Your task to perform on an android device: delete location history Image 0: 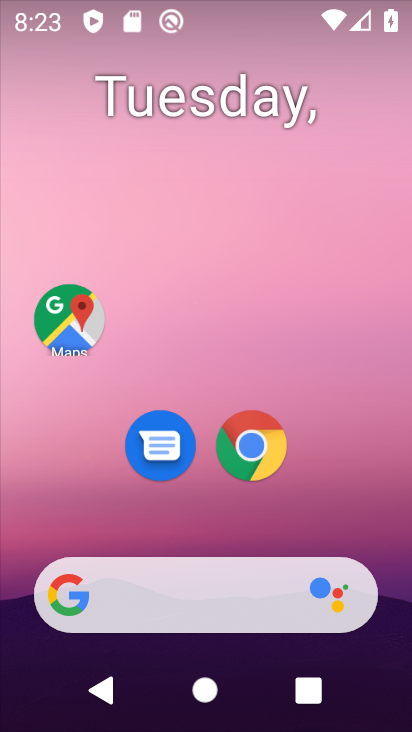
Step 0: drag from (365, 514) to (173, 8)
Your task to perform on an android device: delete location history Image 1: 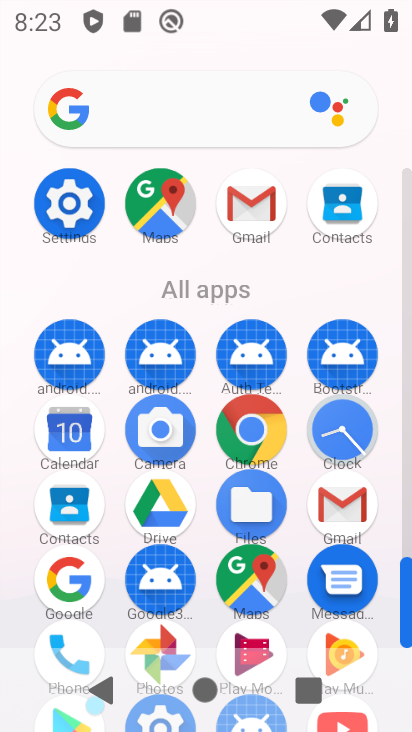
Step 1: click (157, 211)
Your task to perform on an android device: delete location history Image 2: 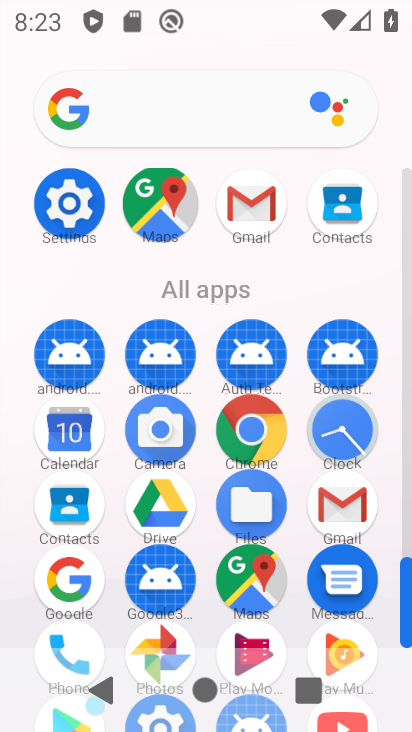
Step 2: click (158, 210)
Your task to perform on an android device: delete location history Image 3: 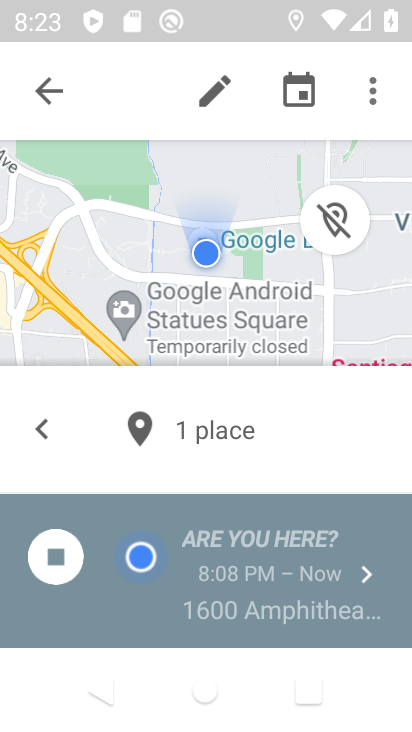
Step 3: click (49, 93)
Your task to perform on an android device: delete location history Image 4: 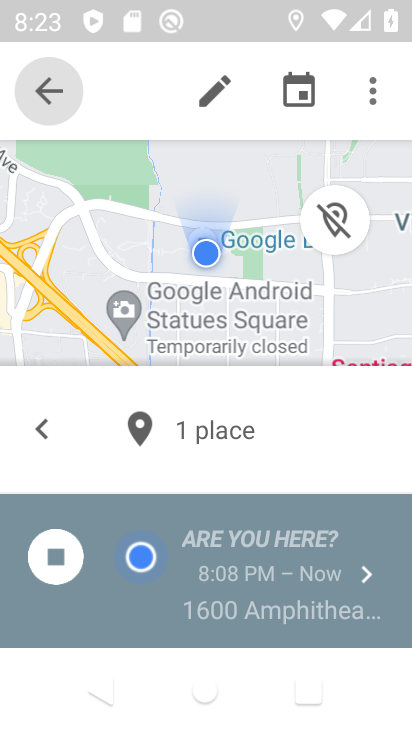
Step 4: click (48, 92)
Your task to perform on an android device: delete location history Image 5: 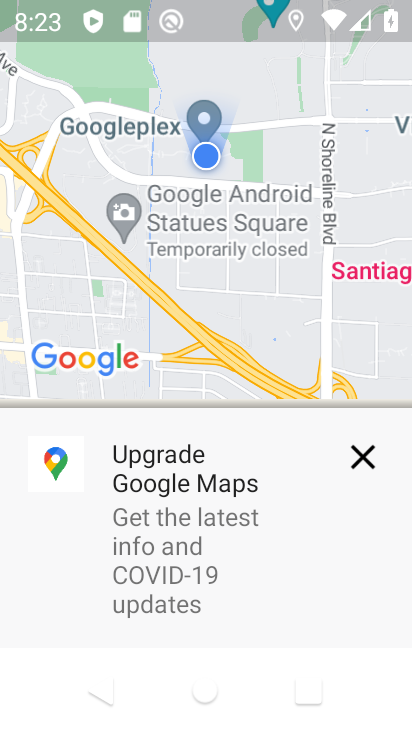
Step 5: click (365, 456)
Your task to perform on an android device: delete location history Image 6: 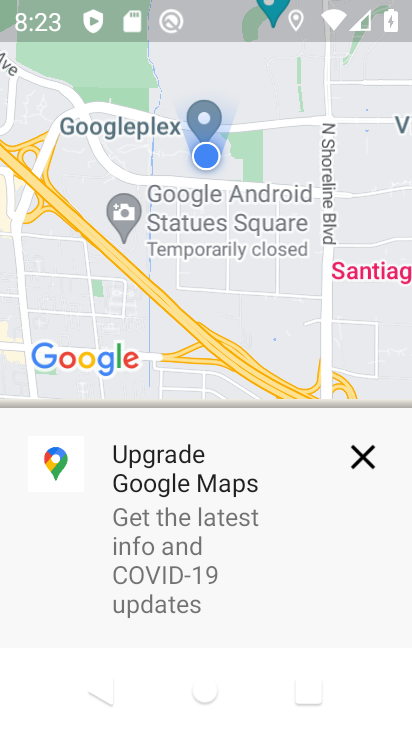
Step 6: click (365, 456)
Your task to perform on an android device: delete location history Image 7: 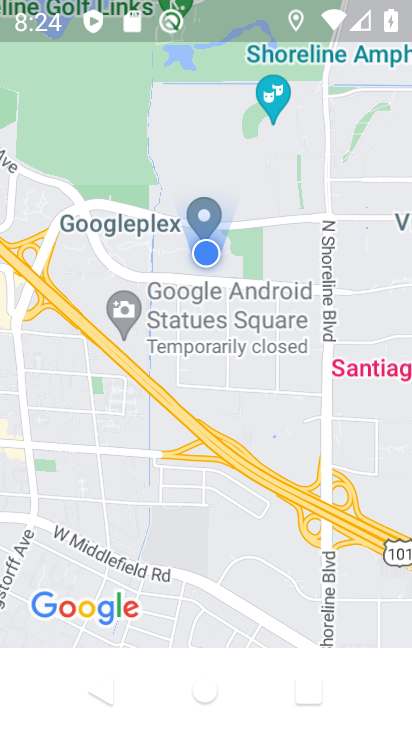
Step 7: drag from (81, 123) to (118, 363)
Your task to perform on an android device: delete location history Image 8: 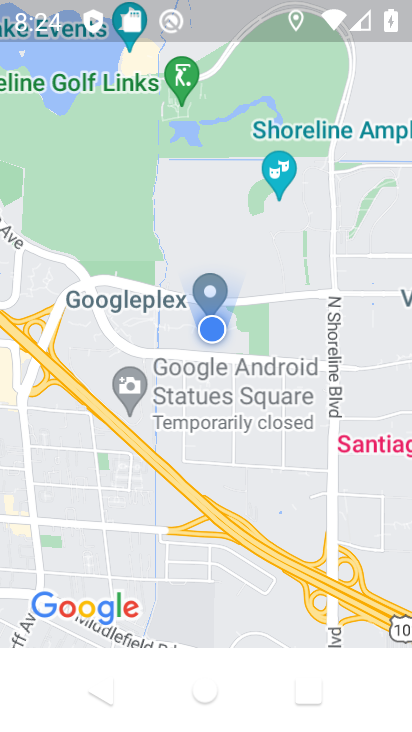
Step 8: drag from (145, 417) to (198, 452)
Your task to perform on an android device: delete location history Image 9: 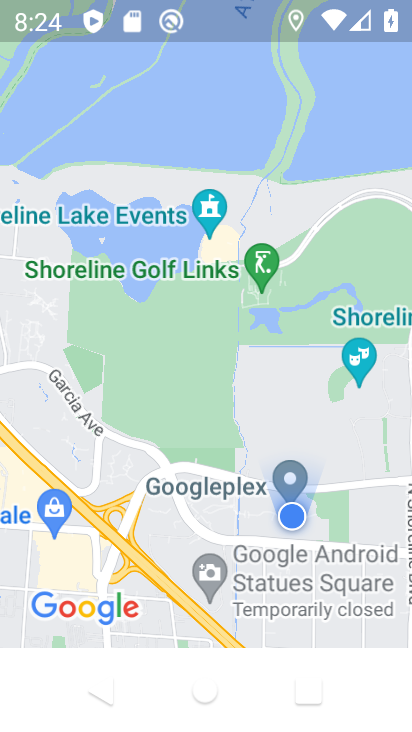
Step 9: drag from (159, 205) to (194, 440)
Your task to perform on an android device: delete location history Image 10: 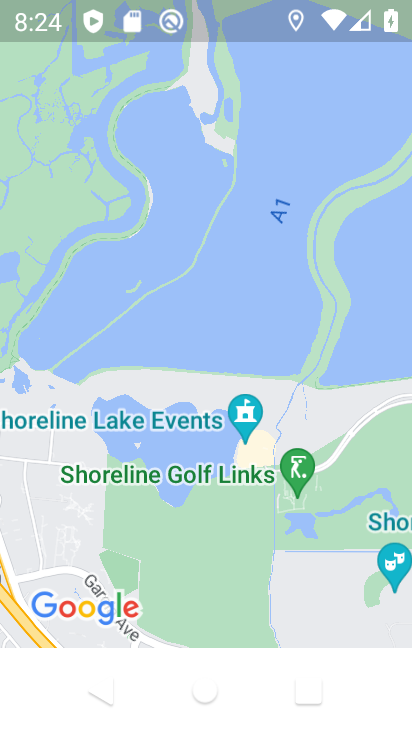
Step 10: press back button
Your task to perform on an android device: delete location history Image 11: 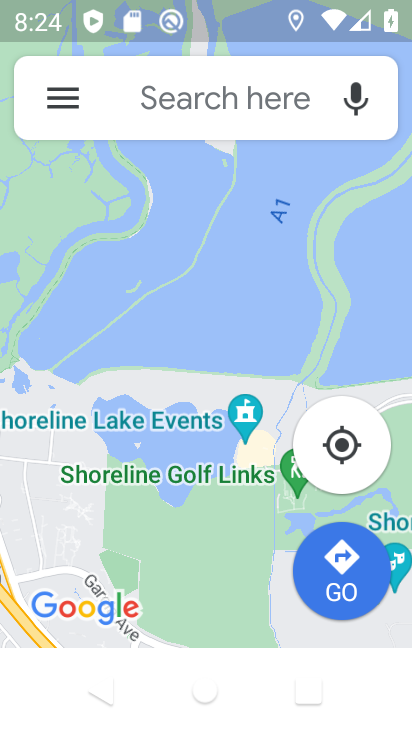
Step 11: click (56, 95)
Your task to perform on an android device: delete location history Image 12: 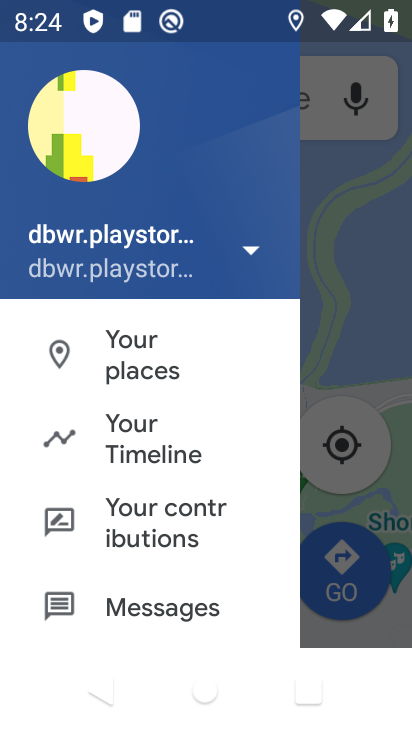
Step 12: click (160, 443)
Your task to perform on an android device: delete location history Image 13: 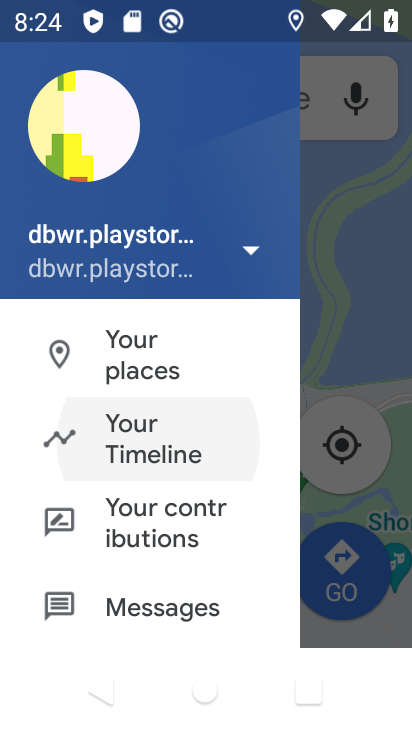
Step 13: click (161, 442)
Your task to perform on an android device: delete location history Image 14: 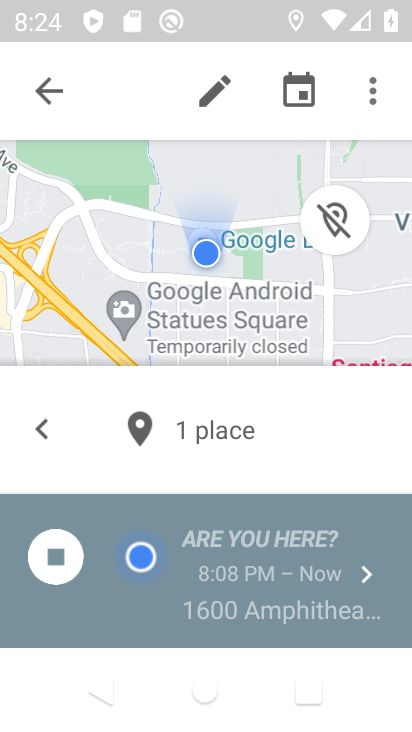
Step 14: click (368, 85)
Your task to perform on an android device: delete location history Image 15: 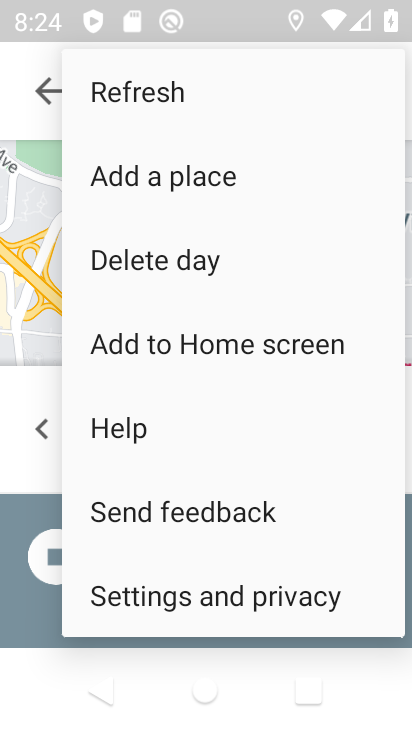
Step 15: click (190, 606)
Your task to perform on an android device: delete location history Image 16: 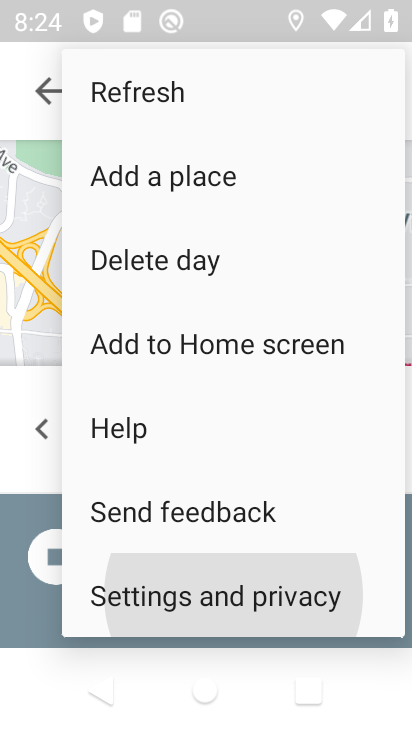
Step 16: click (190, 606)
Your task to perform on an android device: delete location history Image 17: 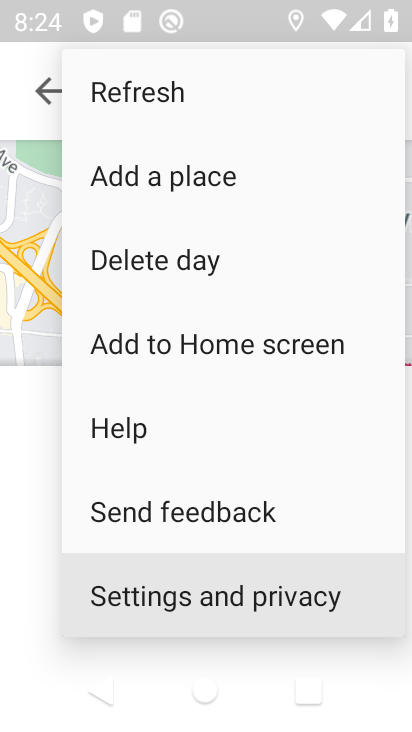
Step 17: click (191, 607)
Your task to perform on an android device: delete location history Image 18: 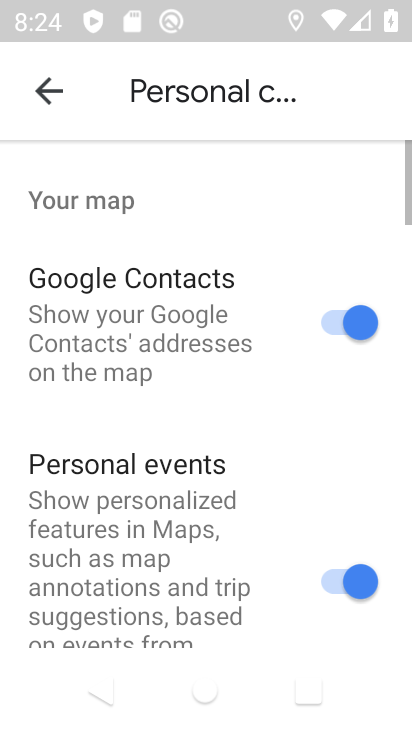
Step 18: drag from (235, 491) to (173, 200)
Your task to perform on an android device: delete location history Image 19: 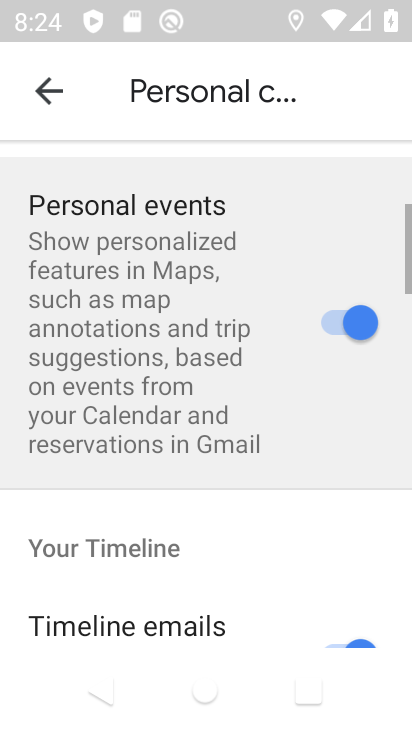
Step 19: drag from (204, 485) to (208, 177)
Your task to perform on an android device: delete location history Image 20: 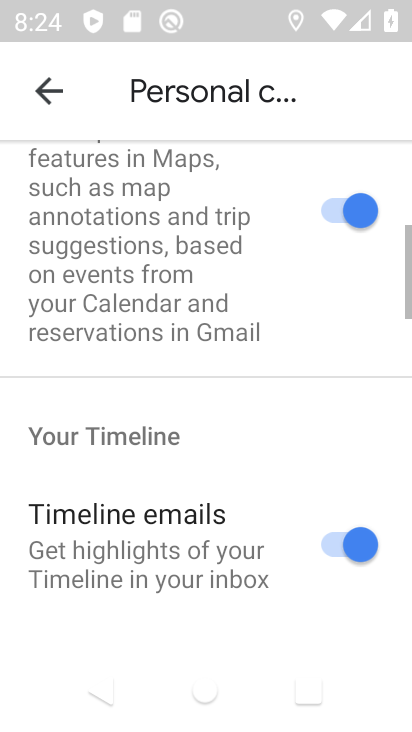
Step 20: drag from (229, 339) to (206, 50)
Your task to perform on an android device: delete location history Image 21: 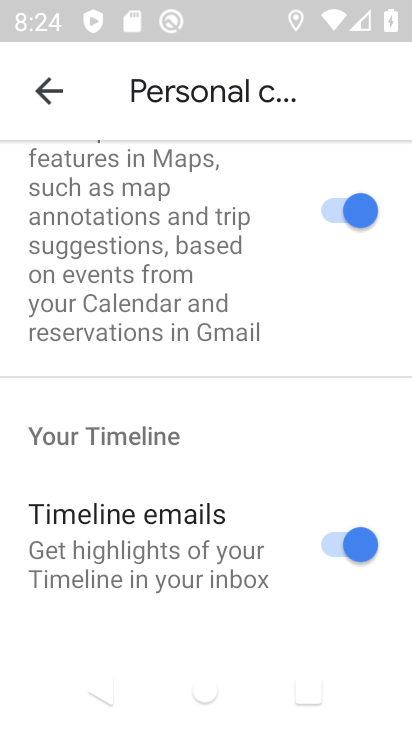
Step 21: drag from (172, 261) to (232, 590)
Your task to perform on an android device: delete location history Image 22: 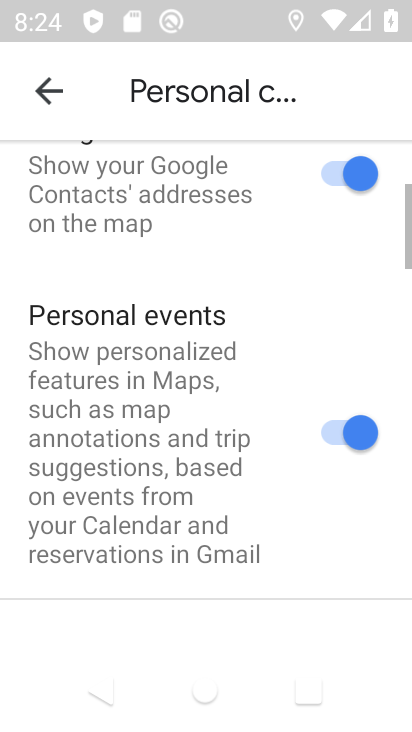
Step 22: drag from (217, 349) to (232, 449)
Your task to perform on an android device: delete location history Image 23: 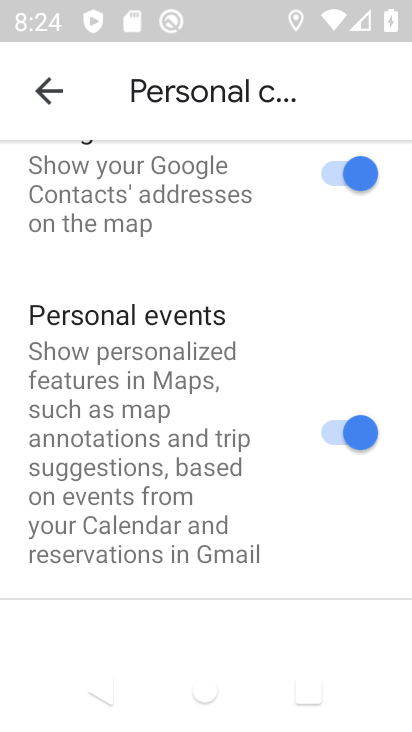
Step 23: drag from (163, 220) to (185, 338)
Your task to perform on an android device: delete location history Image 24: 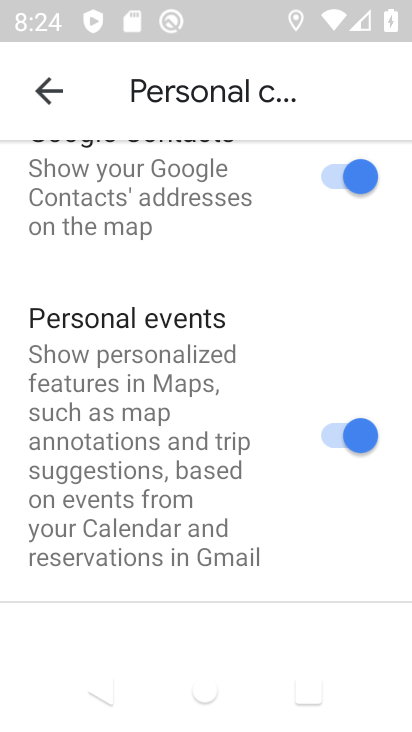
Step 24: drag from (167, 297) to (232, 486)
Your task to perform on an android device: delete location history Image 25: 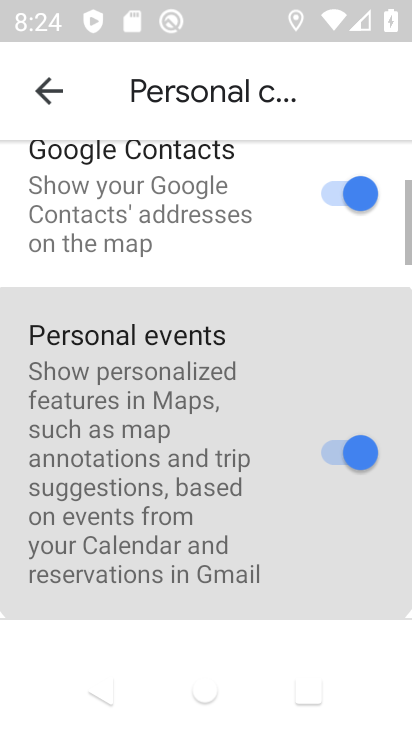
Step 25: drag from (196, 269) to (229, 454)
Your task to perform on an android device: delete location history Image 26: 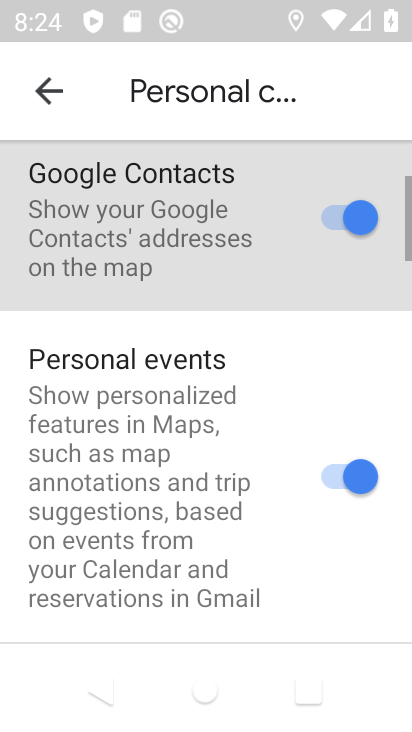
Step 26: drag from (213, 310) to (248, 556)
Your task to perform on an android device: delete location history Image 27: 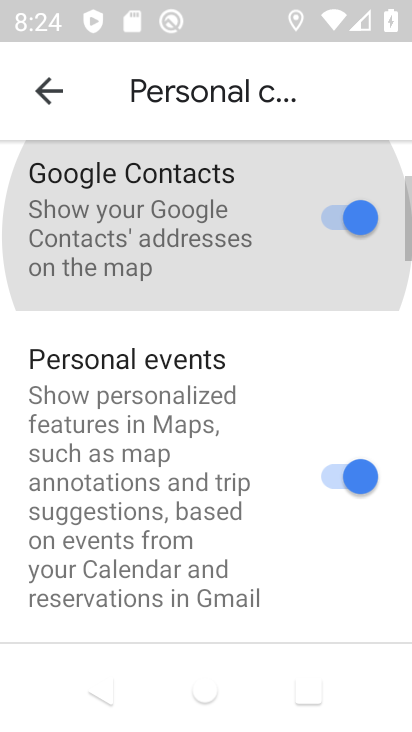
Step 27: drag from (221, 243) to (232, 517)
Your task to perform on an android device: delete location history Image 28: 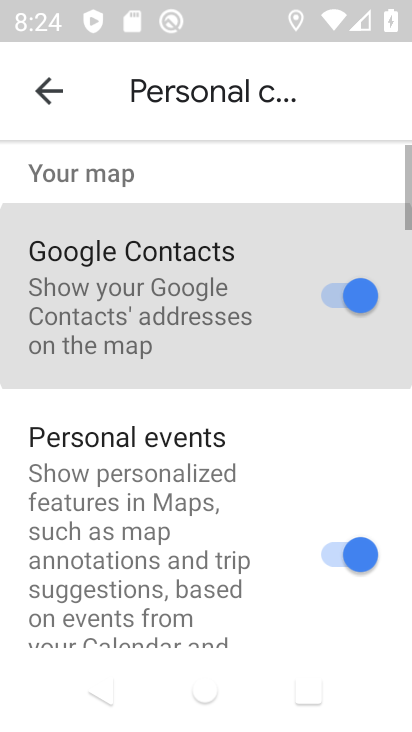
Step 28: drag from (184, 473) to (202, 606)
Your task to perform on an android device: delete location history Image 29: 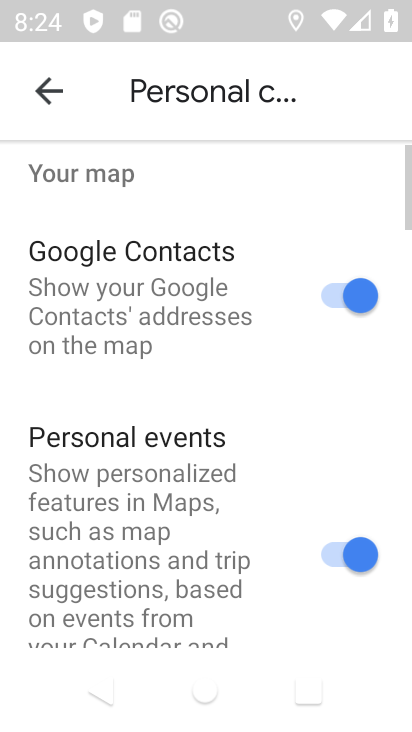
Step 29: drag from (82, 231) to (163, 534)
Your task to perform on an android device: delete location history Image 30: 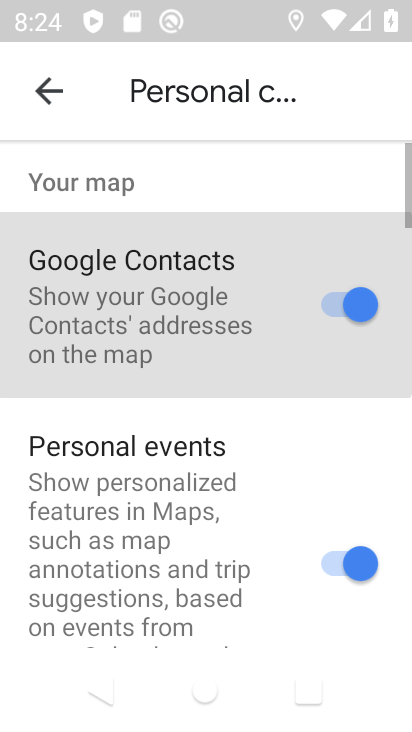
Step 30: drag from (127, 330) to (190, 528)
Your task to perform on an android device: delete location history Image 31: 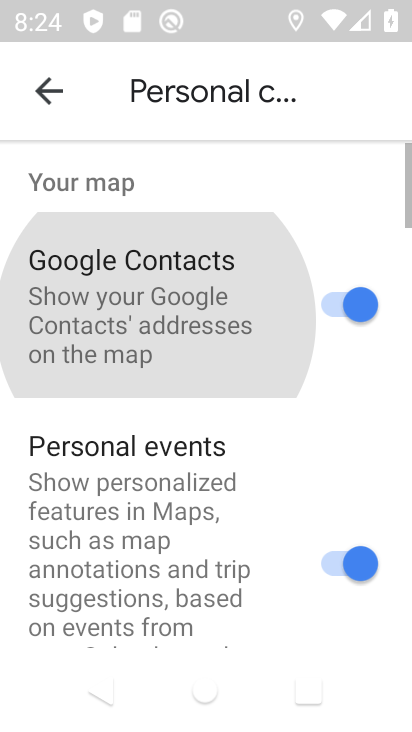
Step 31: drag from (132, 297) to (205, 578)
Your task to perform on an android device: delete location history Image 32: 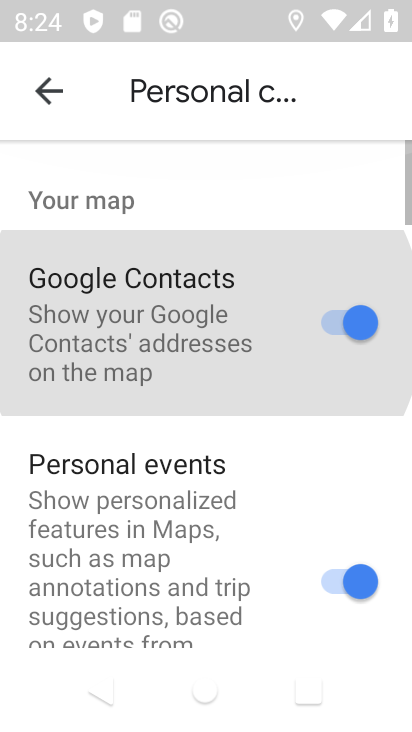
Step 32: drag from (147, 383) to (151, 220)
Your task to perform on an android device: delete location history Image 33: 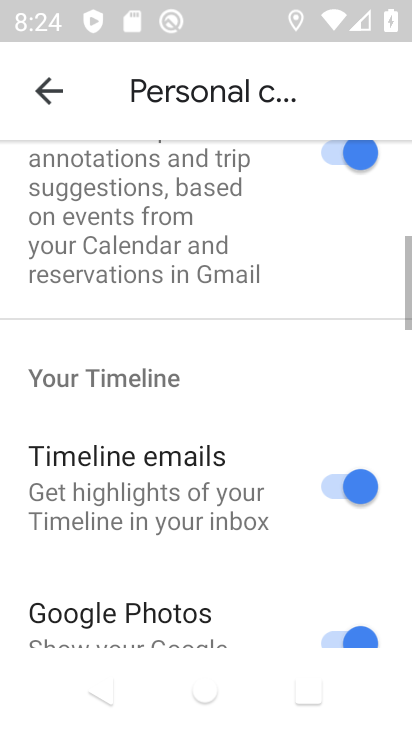
Step 33: drag from (243, 419) to (194, 98)
Your task to perform on an android device: delete location history Image 34: 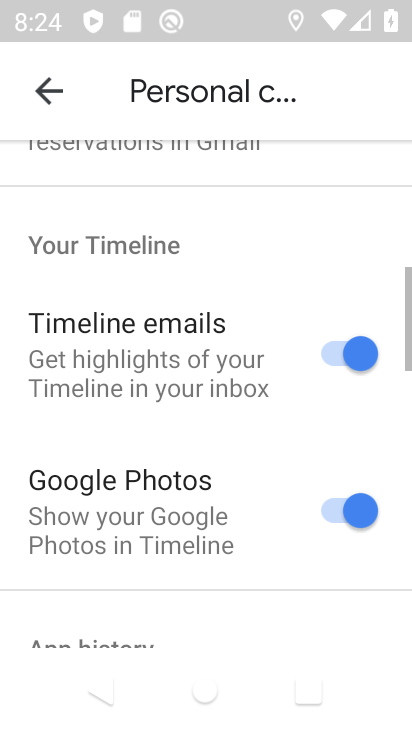
Step 34: drag from (275, 415) to (197, 78)
Your task to perform on an android device: delete location history Image 35: 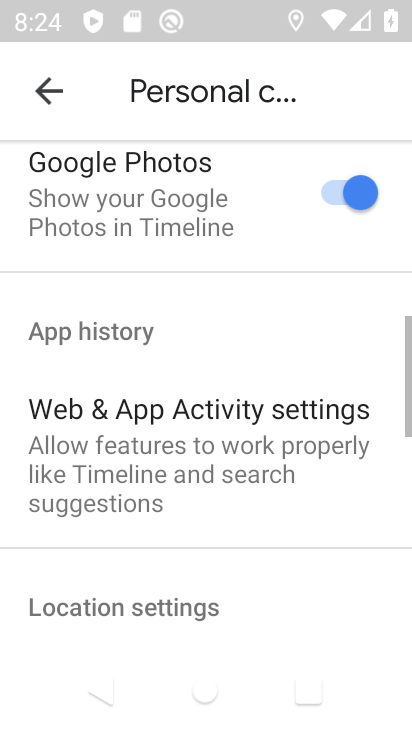
Step 35: drag from (171, 542) to (197, 177)
Your task to perform on an android device: delete location history Image 36: 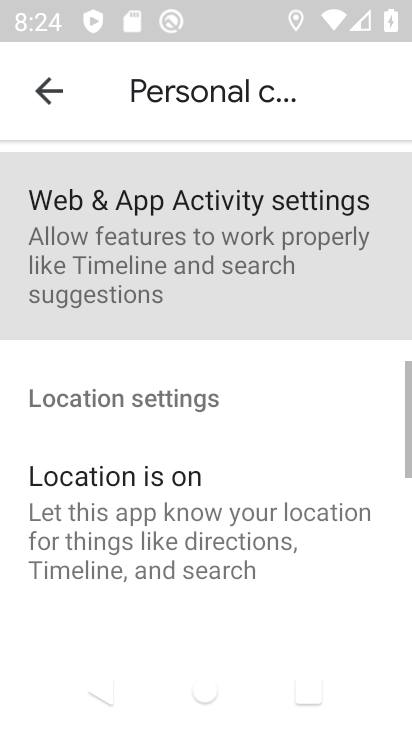
Step 36: drag from (167, 538) to (134, 128)
Your task to perform on an android device: delete location history Image 37: 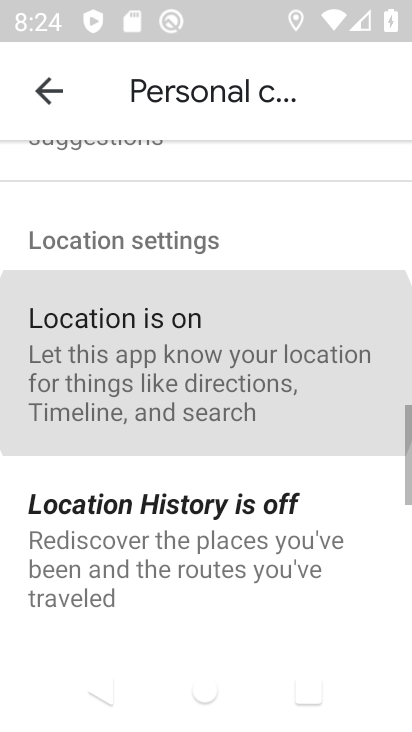
Step 37: drag from (230, 473) to (199, 186)
Your task to perform on an android device: delete location history Image 38: 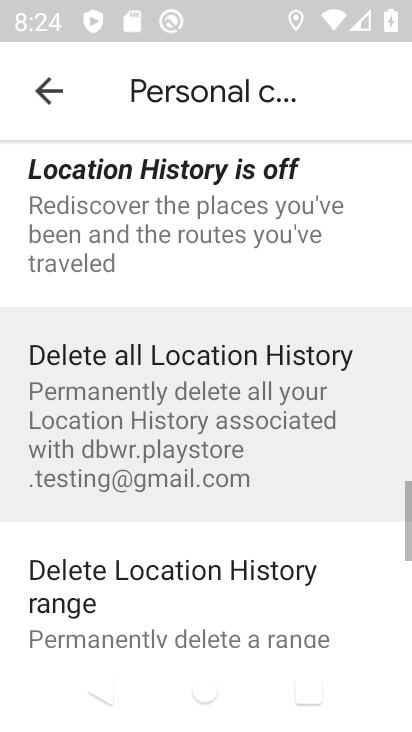
Step 38: drag from (229, 470) to (184, 264)
Your task to perform on an android device: delete location history Image 39: 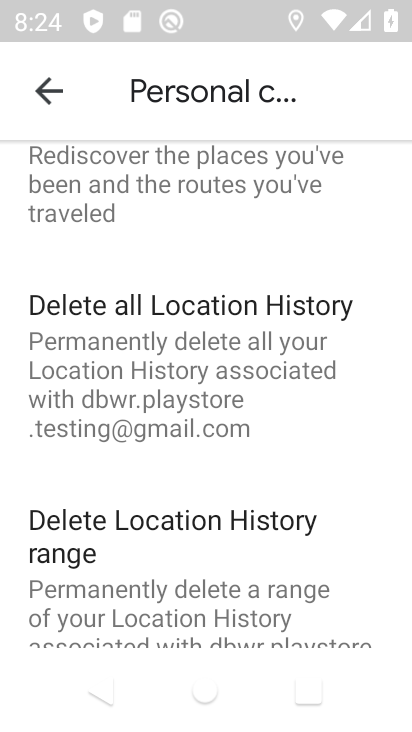
Step 39: drag from (172, 252) to (209, 546)
Your task to perform on an android device: delete location history Image 40: 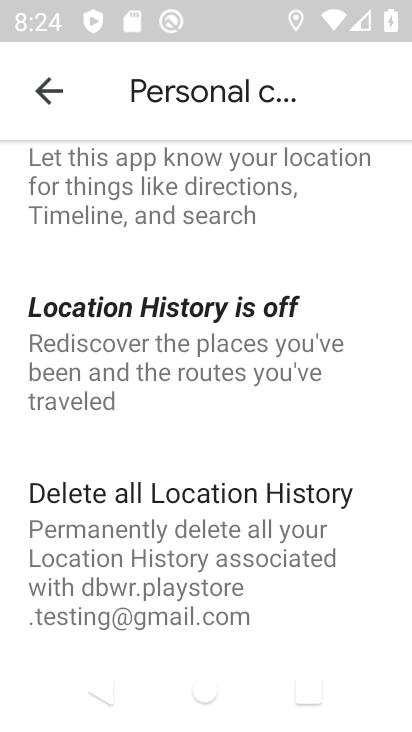
Step 40: click (199, 518)
Your task to perform on an android device: delete location history Image 41: 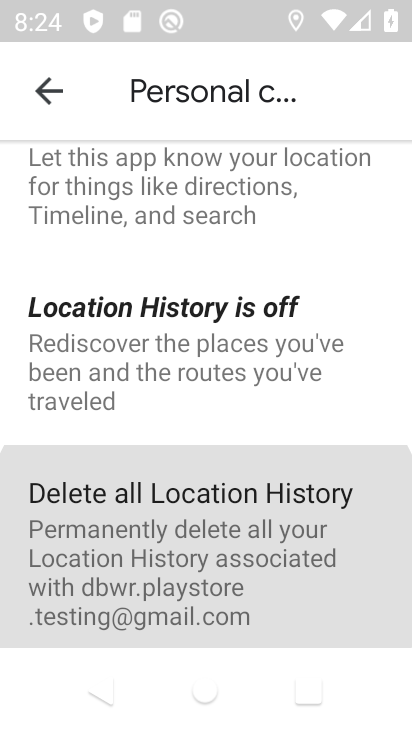
Step 41: click (199, 518)
Your task to perform on an android device: delete location history Image 42: 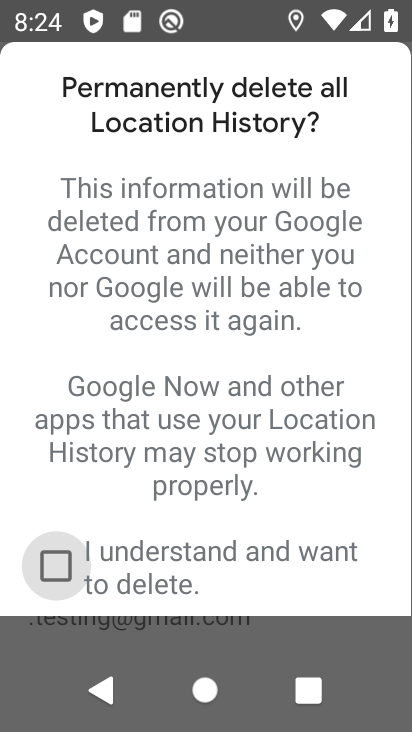
Step 42: click (199, 518)
Your task to perform on an android device: delete location history Image 43: 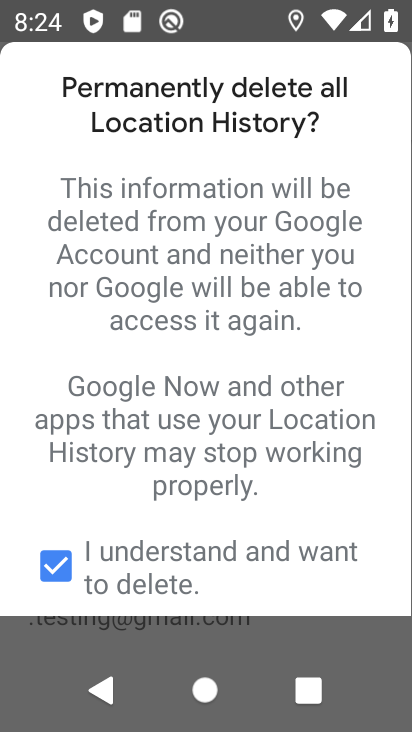
Step 43: drag from (269, 548) to (222, 203)
Your task to perform on an android device: delete location history Image 44: 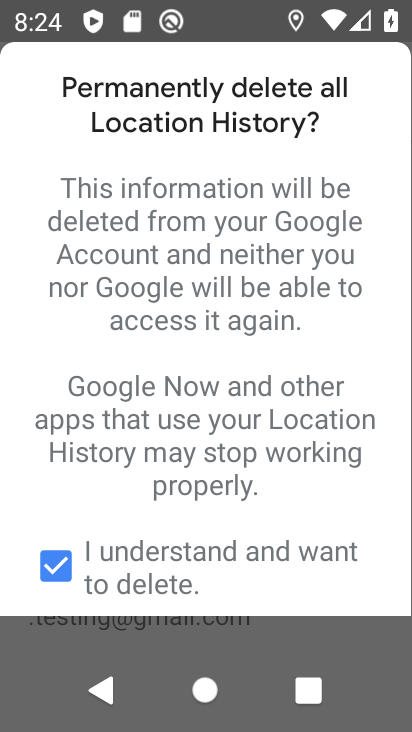
Step 44: drag from (256, 524) to (212, 188)
Your task to perform on an android device: delete location history Image 45: 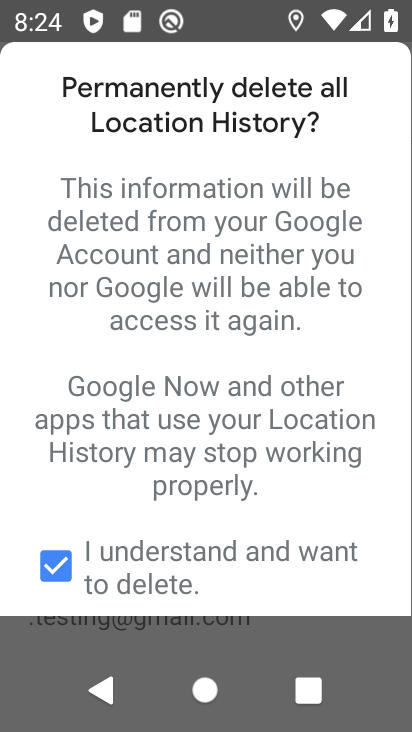
Step 45: drag from (283, 482) to (200, 91)
Your task to perform on an android device: delete location history Image 46: 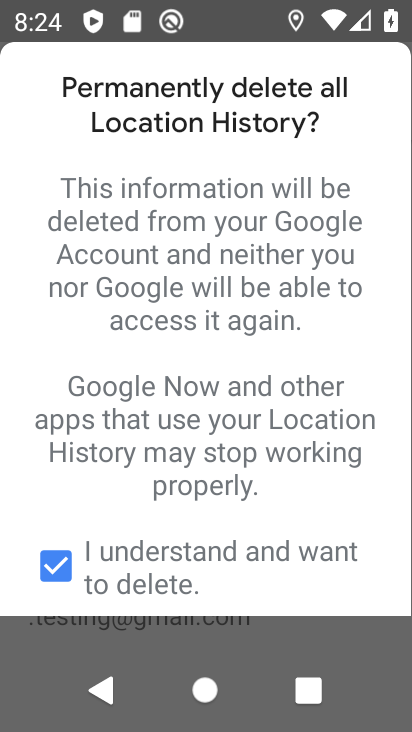
Step 46: drag from (380, 507) to (260, 56)
Your task to perform on an android device: delete location history Image 47: 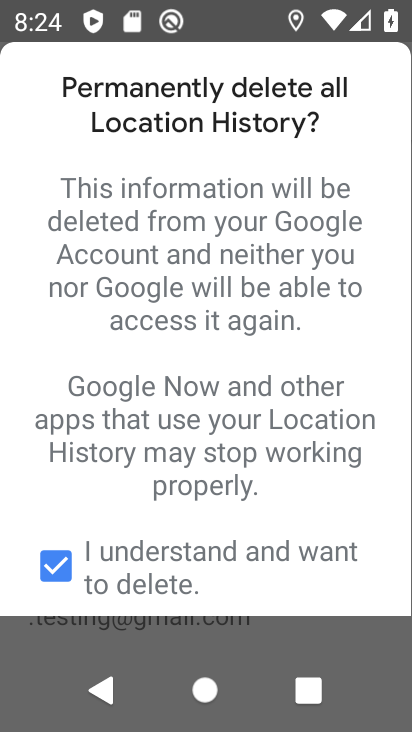
Step 47: drag from (284, 465) to (223, 224)
Your task to perform on an android device: delete location history Image 48: 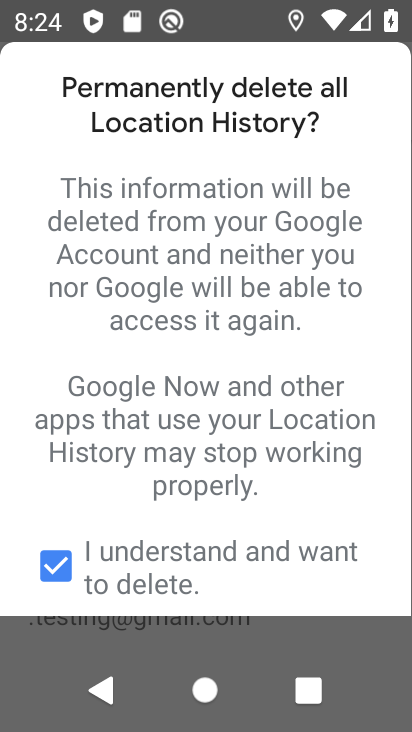
Step 48: click (316, 533)
Your task to perform on an android device: delete location history Image 49: 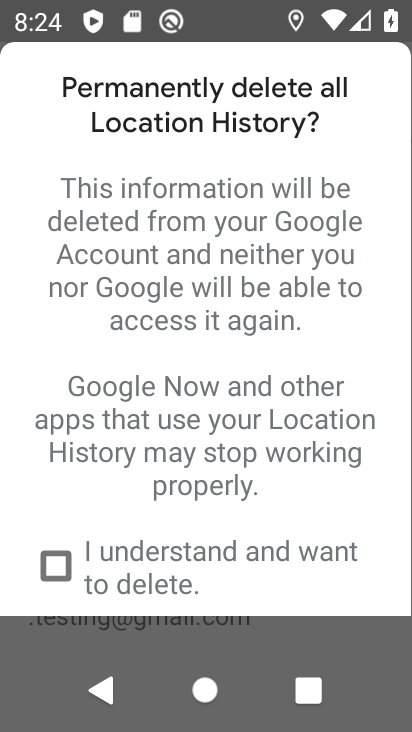
Step 49: drag from (317, 582) to (251, 188)
Your task to perform on an android device: delete location history Image 50: 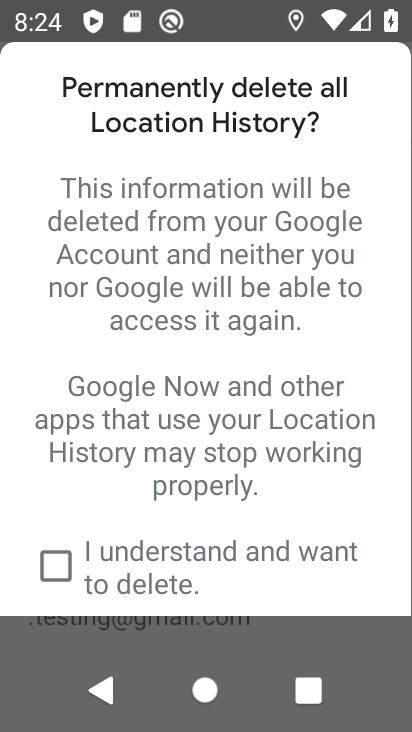
Step 50: drag from (310, 483) to (247, 272)
Your task to perform on an android device: delete location history Image 51: 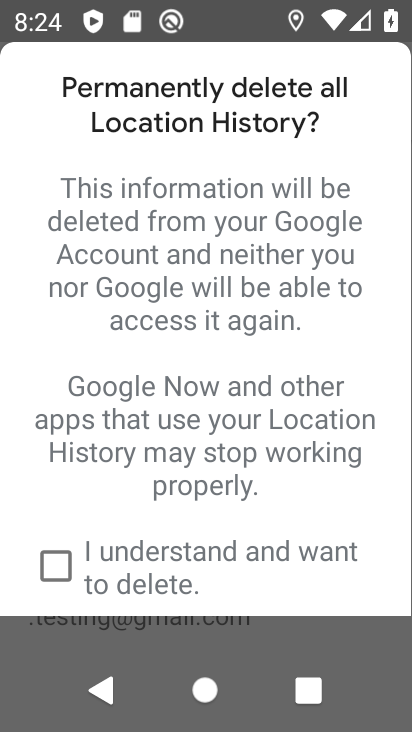
Step 51: click (62, 565)
Your task to perform on an android device: delete location history Image 52: 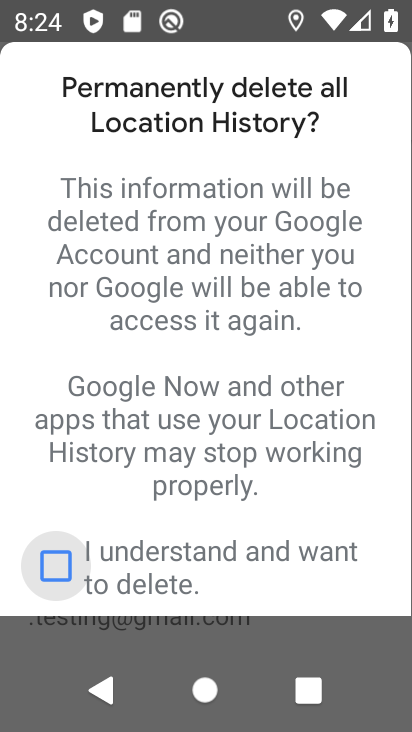
Step 52: click (62, 565)
Your task to perform on an android device: delete location history Image 53: 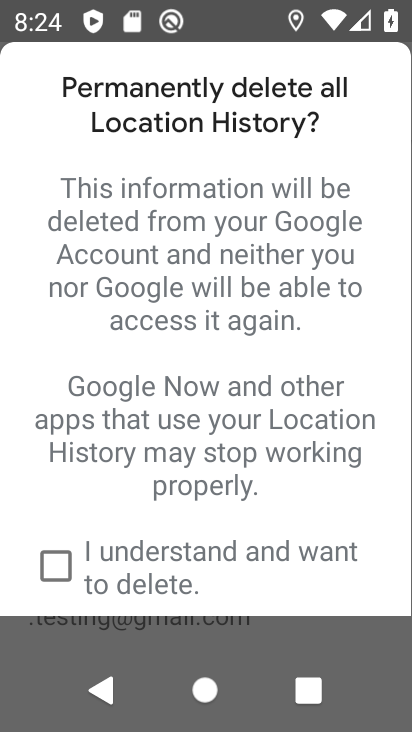
Step 53: click (55, 561)
Your task to perform on an android device: delete location history Image 54: 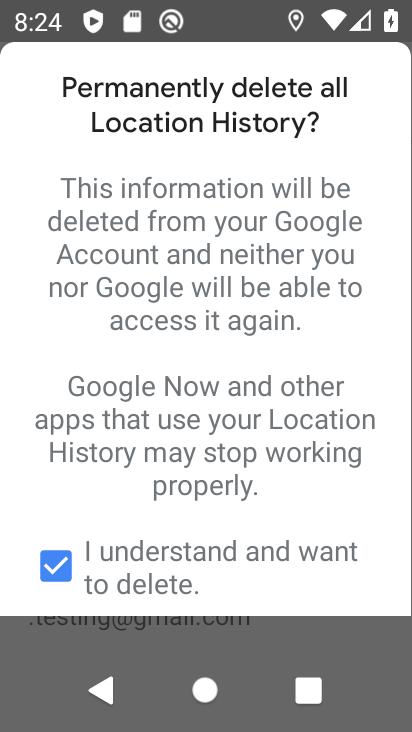
Step 54: drag from (355, 545) to (232, 86)
Your task to perform on an android device: delete location history Image 55: 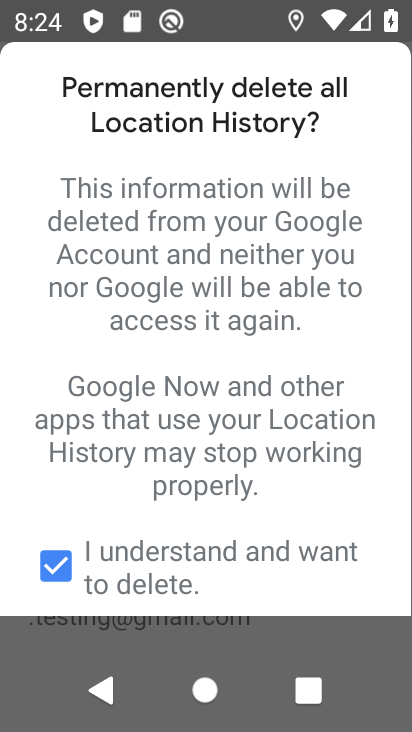
Step 55: click (332, 575)
Your task to perform on an android device: delete location history Image 56: 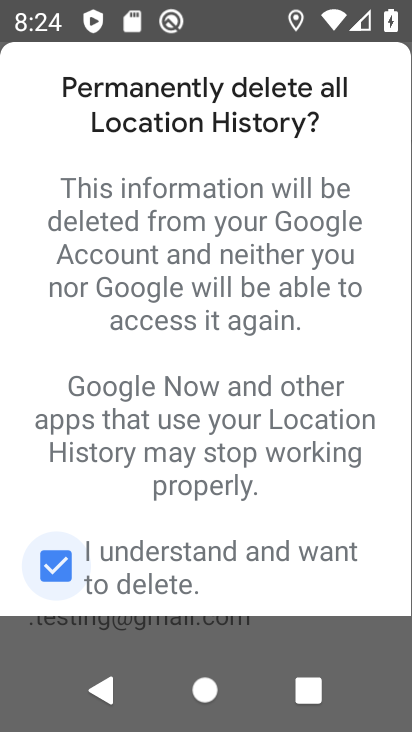
Step 56: click (338, 574)
Your task to perform on an android device: delete location history Image 57: 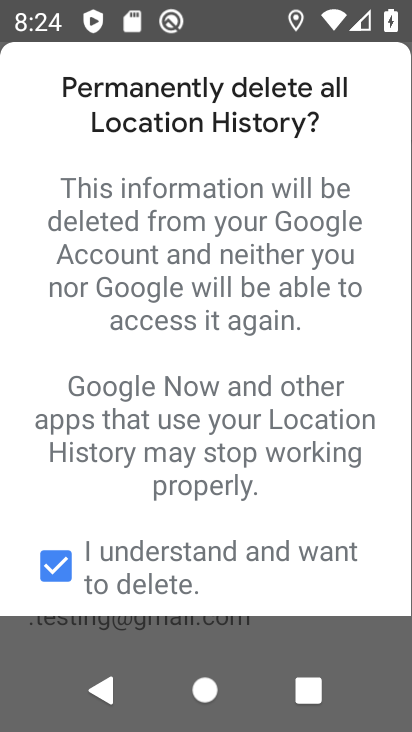
Step 57: click (344, 563)
Your task to perform on an android device: delete location history Image 58: 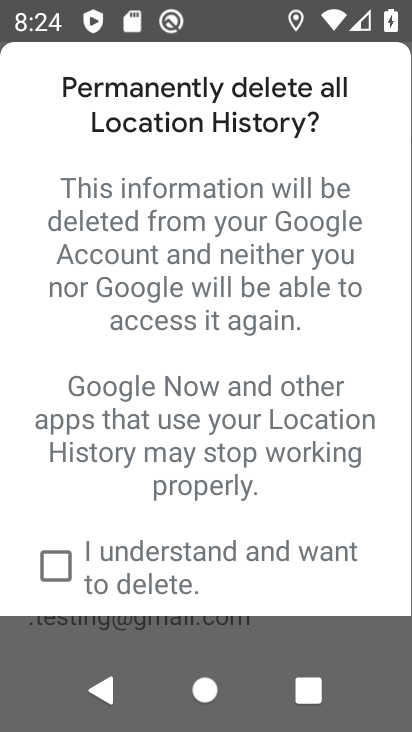
Step 58: click (56, 563)
Your task to perform on an android device: delete location history Image 59: 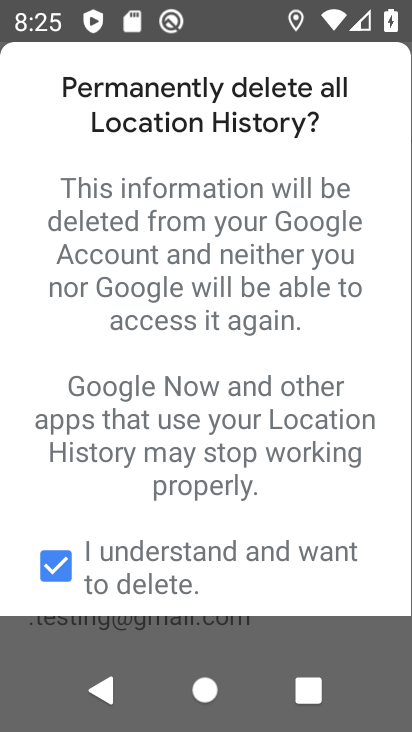
Step 59: task complete